Your task to perform on an android device: Search for sushi restaurants on Maps Image 0: 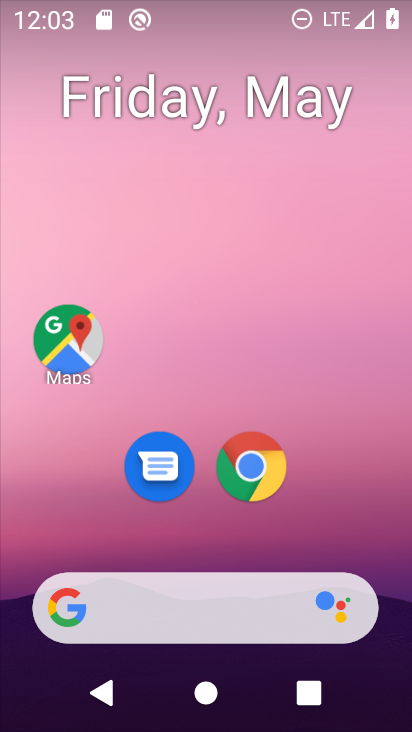
Step 0: drag from (286, 595) to (344, 126)
Your task to perform on an android device: Search for sushi restaurants on Maps Image 1: 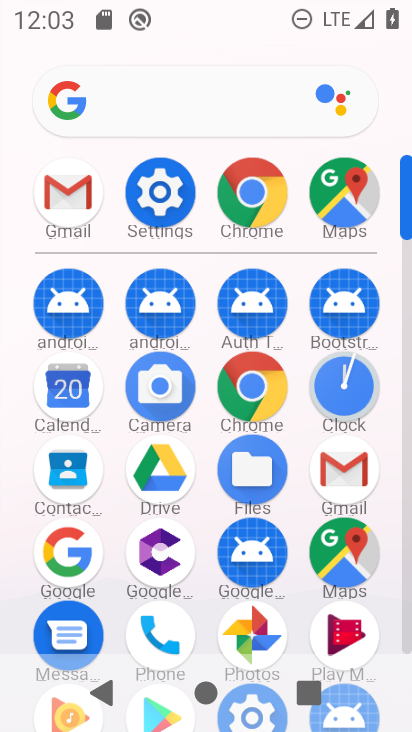
Step 1: click (359, 552)
Your task to perform on an android device: Search for sushi restaurants on Maps Image 2: 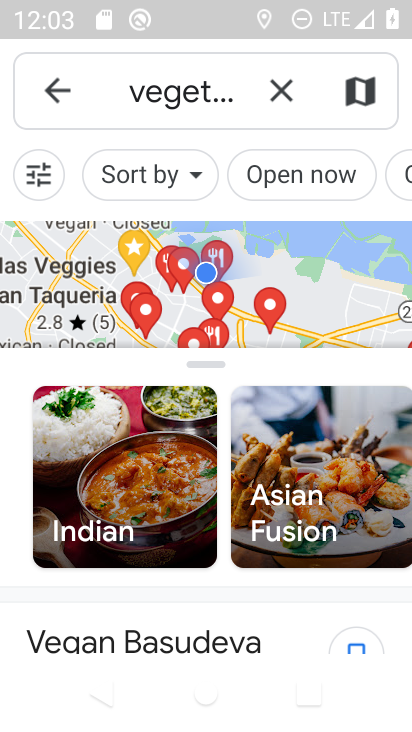
Step 2: click (289, 94)
Your task to perform on an android device: Search for sushi restaurants on Maps Image 3: 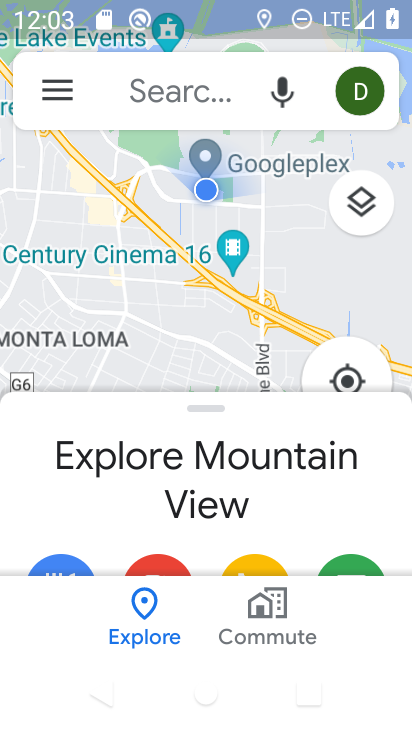
Step 3: click (223, 108)
Your task to perform on an android device: Search for sushi restaurants on Maps Image 4: 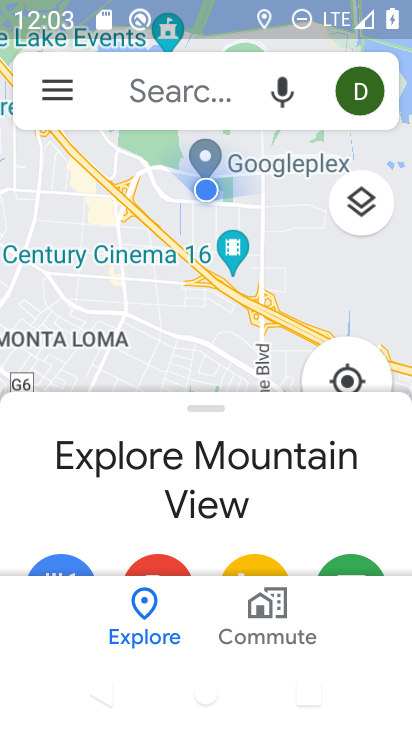
Step 4: click (223, 108)
Your task to perform on an android device: Search for sushi restaurants on Maps Image 5: 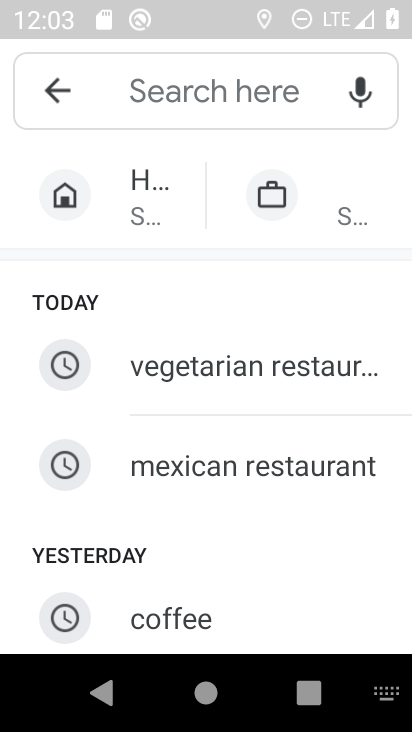
Step 5: drag from (277, 552) to (264, 37)
Your task to perform on an android device: Search for sushi restaurants on Maps Image 6: 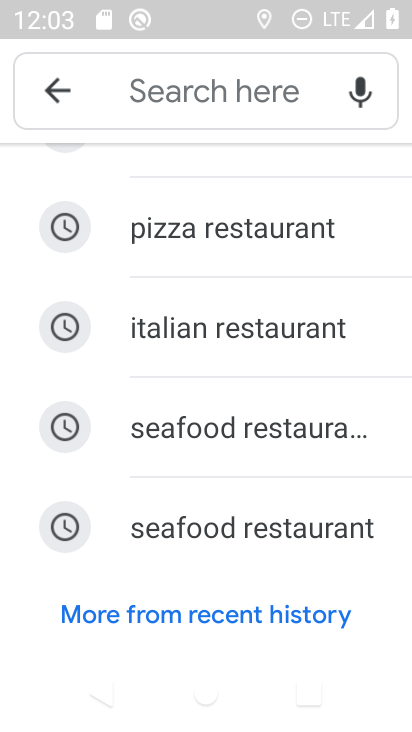
Step 6: drag from (291, 534) to (325, 88)
Your task to perform on an android device: Search for sushi restaurants on Maps Image 7: 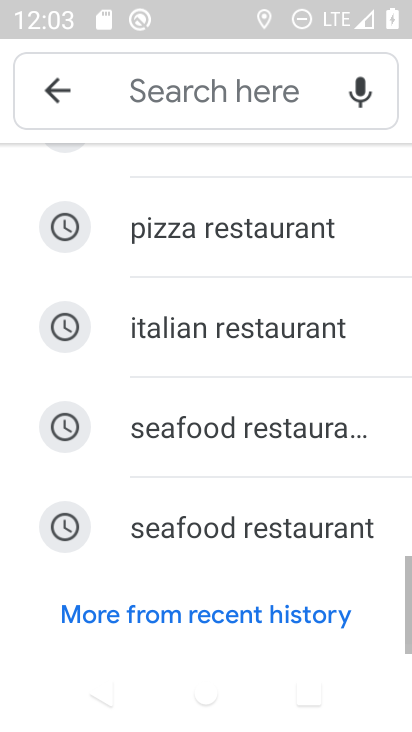
Step 7: click (224, 95)
Your task to perform on an android device: Search for sushi restaurants on Maps Image 8: 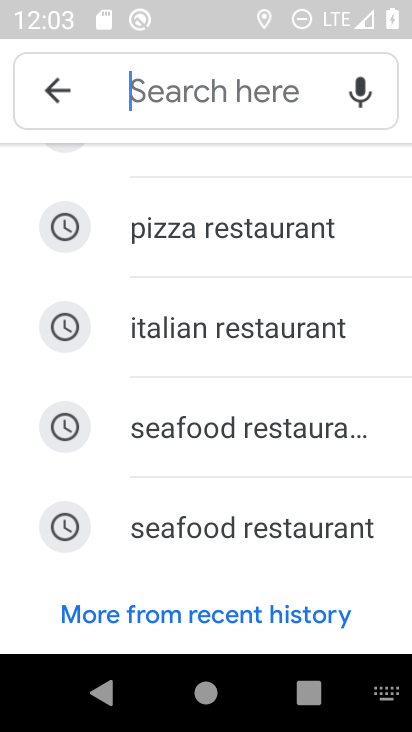
Step 8: type "sushi restaurant"
Your task to perform on an android device: Search for sushi restaurants on Maps Image 9: 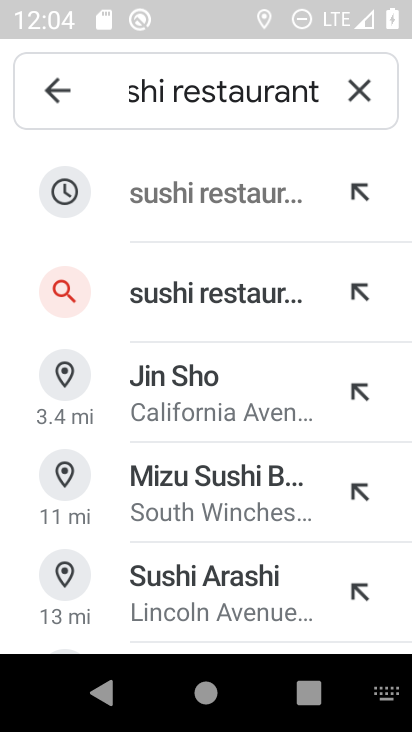
Step 9: click (202, 302)
Your task to perform on an android device: Search for sushi restaurants on Maps Image 10: 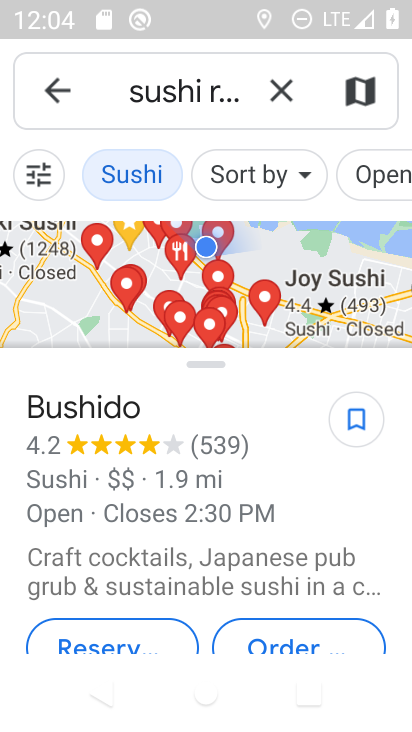
Step 10: task complete